Your task to perform on an android device: Show me popular games on the Play Store Image 0: 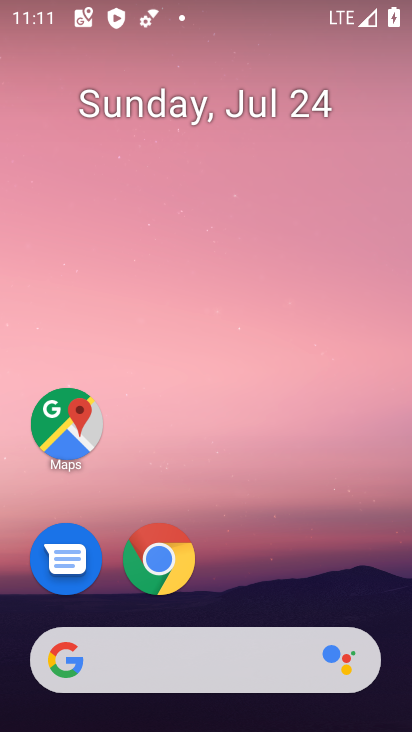
Step 0: drag from (309, 579) to (358, 3)
Your task to perform on an android device: Show me popular games on the Play Store Image 1: 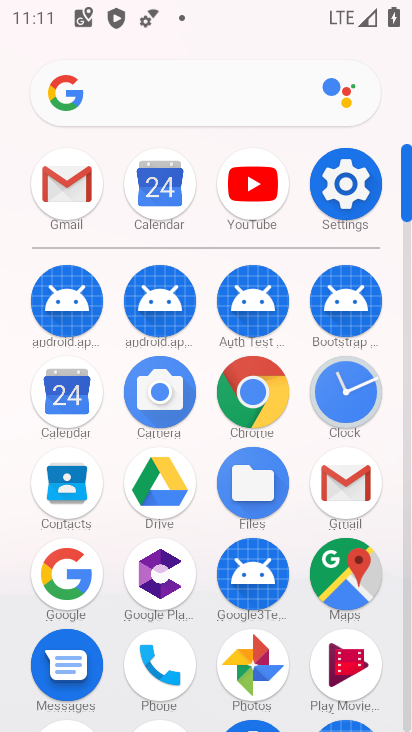
Step 1: drag from (105, 588) to (295, 50)
Your task to perform on an android device: Show me popular games on the Play Store Image 2: 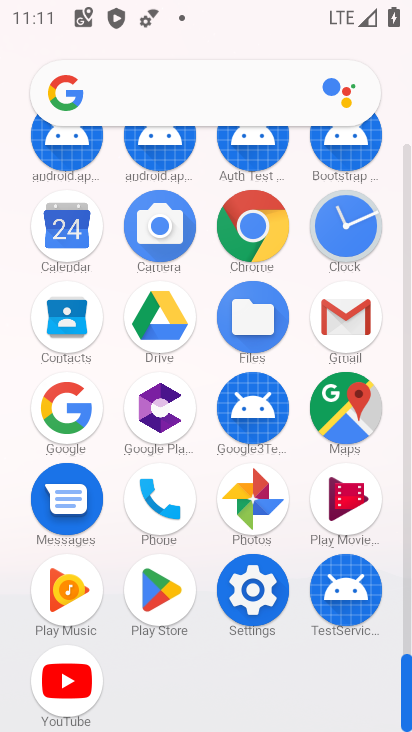
Step 2: click (162, 591)
Your task to perform on an android device: Show me popular games on the Play Store Image 3: 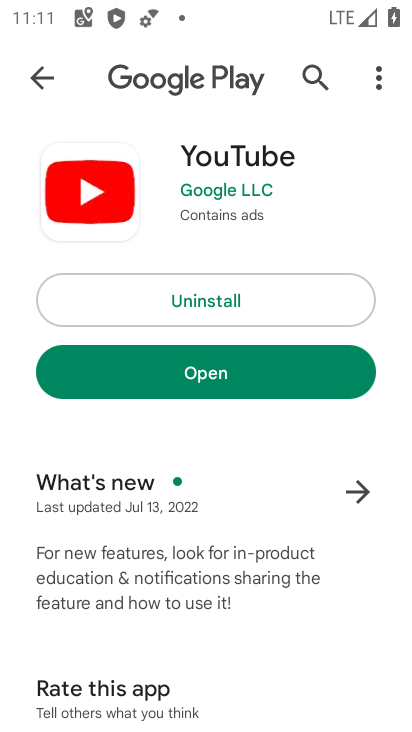
Step 3: click (43, 68)
Your task to perform on an android device: Show me popular games on the Play Store Image 4: 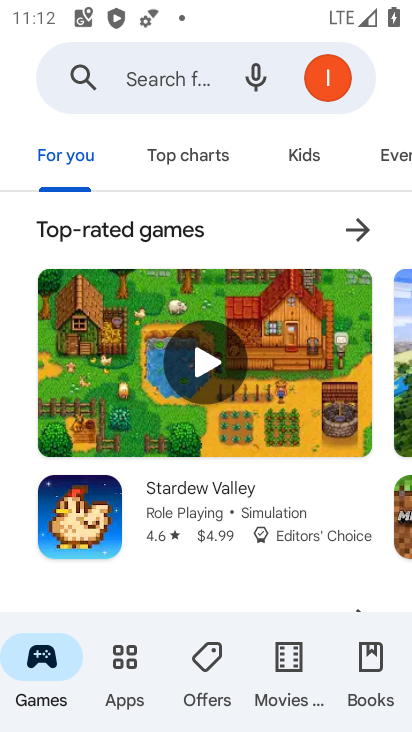
Step 4: click (43, 655)
Your task to perform on an android device: Show me popular games on the Play Store Image 5: 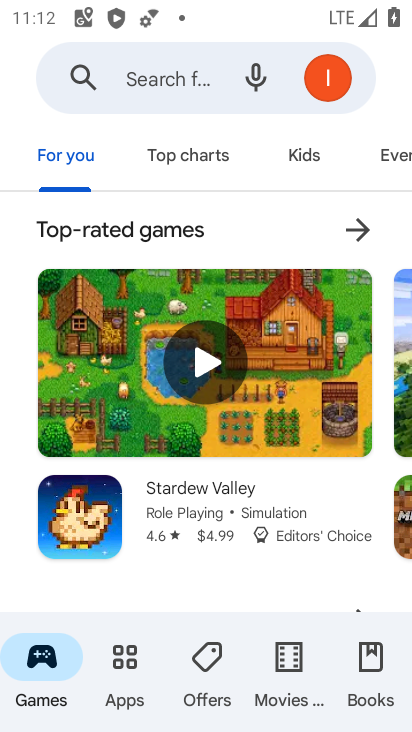
Step 5: drag from (189, 539) to (284, 34)
Your task to perform on an android device: Show me popular games on the Play Store Image 6: 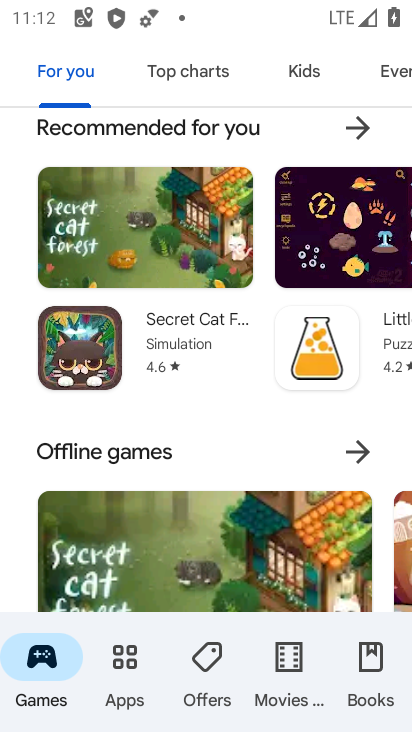
Step 6: drag from (162, 510) to (279, 33)
Your task to perform on an android device: Show me popular games on the Play Store Image 7: 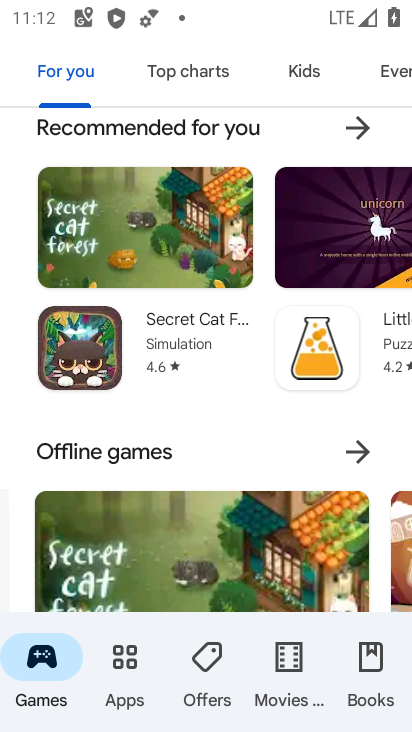
Step 7: drag from (173, 561) to (319, 6)
Your task to perform on an android device: Show me popular games on the Play Store Image 8: 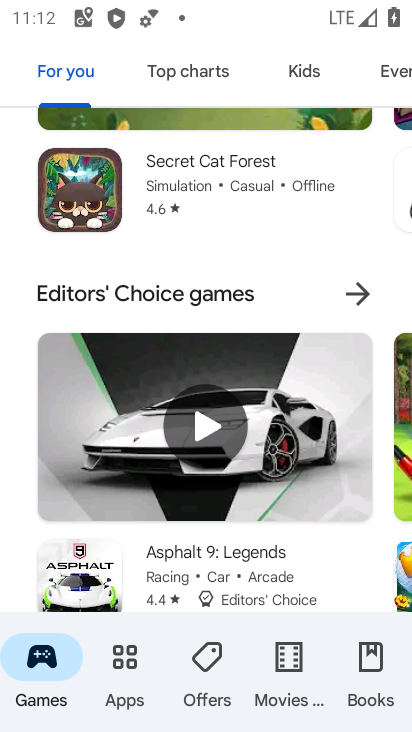
Step 8: drag from (145, 539) to (276, 15)
Your task to perform on an android device: Show me popular games on the Play Store Image 9: 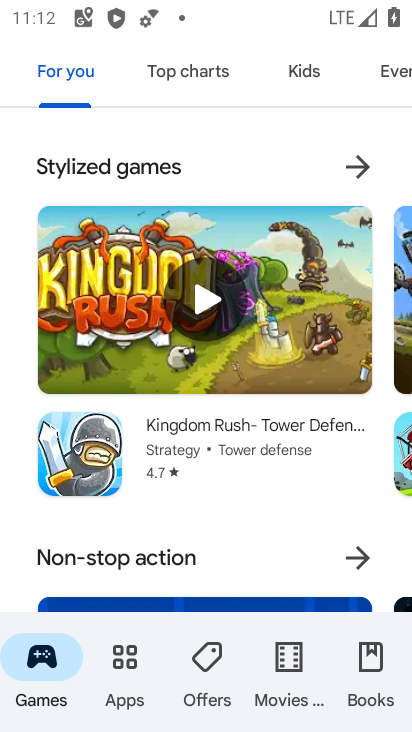
Step 9: drag from (154, 520) to (289, 8)
Your task to perform on an android device: Show me popular games on the Play Store Image 10: 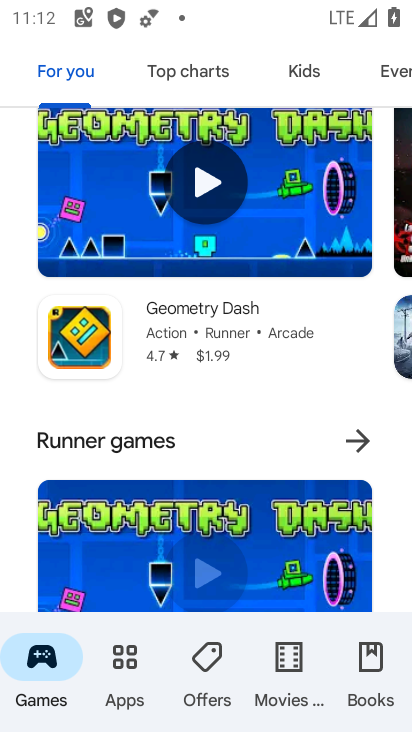
Step 10: drag from (237, 556) to (313, 81)
Your task to perform on an android device: Show me popular games on the Play Store Image 11: 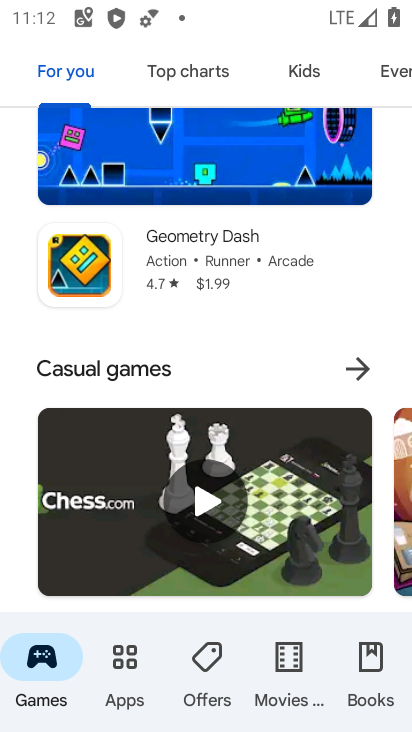
Step 11: click (36, 660)
Your task to perform on an android device: Show me popular games on the Play Store Image 12: 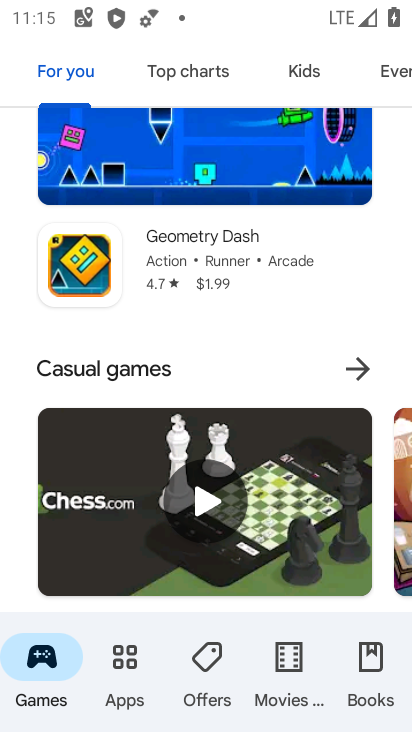
Step 12: click (48, 667)
Your task to perform on an android device: Show me popular games on the Play Store Image 13: 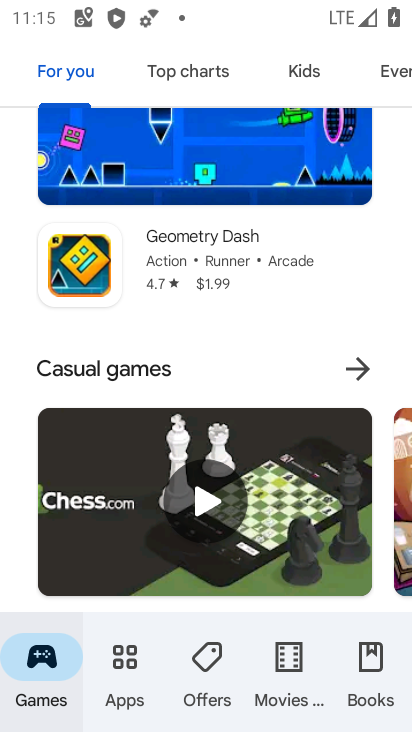
Step 13: drag from (257, 536) to (301, 60)
Your task to perform on an android device: Show me popular games on the Play Store Image 14: 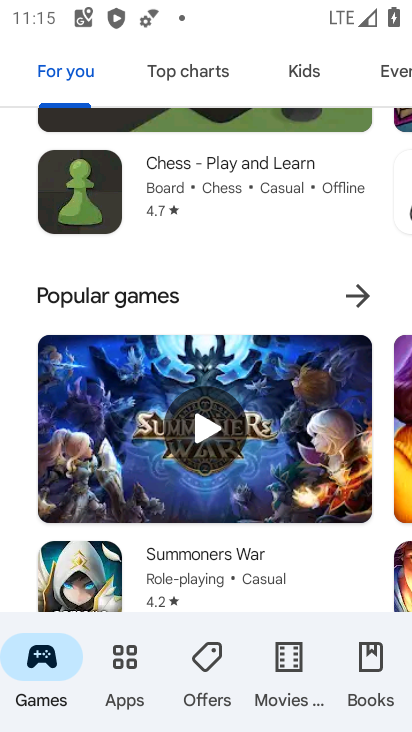
Step 14: click (354, 292)
Your task to perform on an android device: Show me popular games on the Play Store Image 15: 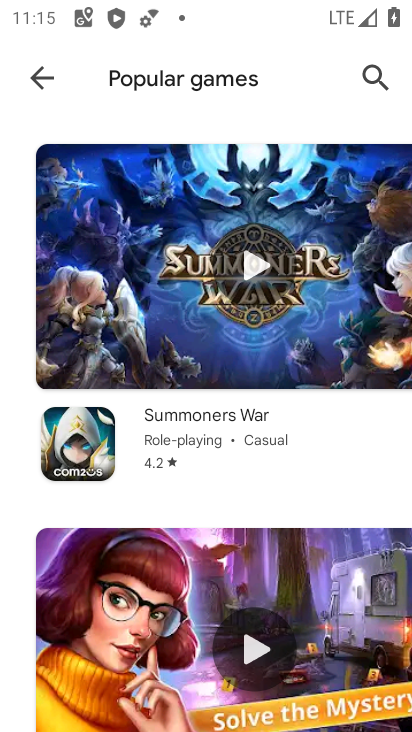
Step 15: task complete